Your task to perform on an android device: Open Wikipedia Image 0: 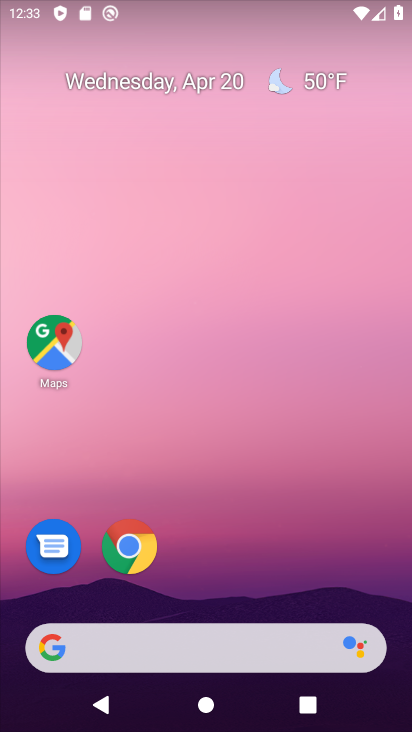
Step 0: drag from (246, 518) to (296, 46)
Your task to perform on an android device: Open Wikipedia Image 1: 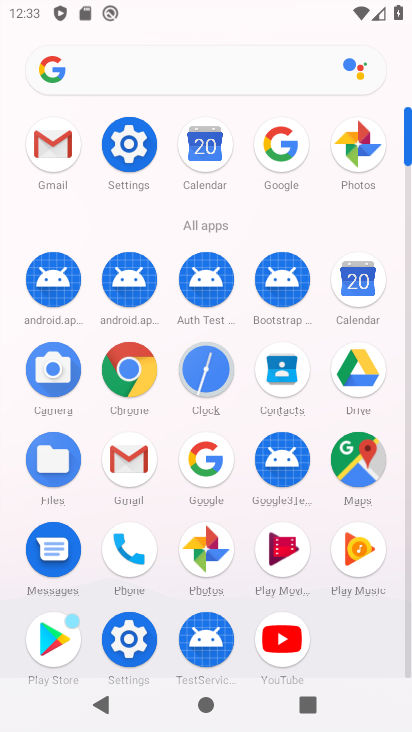
Step 1: click (130, 357)
Your task to perform on an android device: Open Wikipedia Image 2: 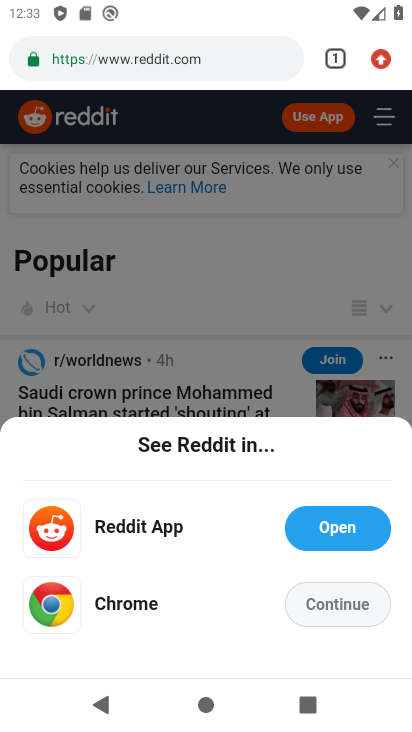
Step 2: click (337, 55)
Your task to perform on an android device: Open Wikipedia Image 3: 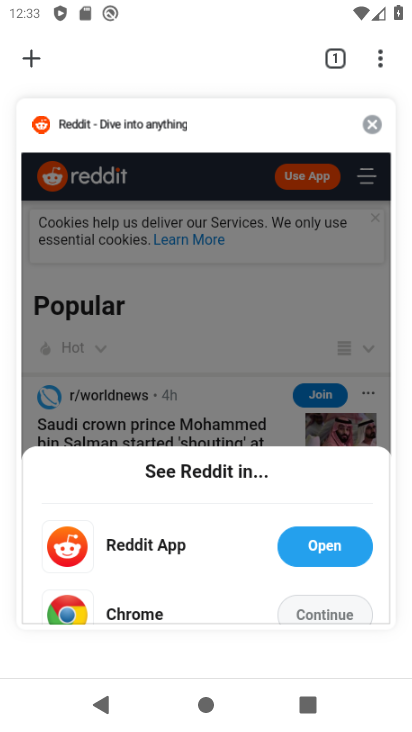
Step 3: click (25, 49)
Your task to perform on an android device: Open Wikipedia Image 4: 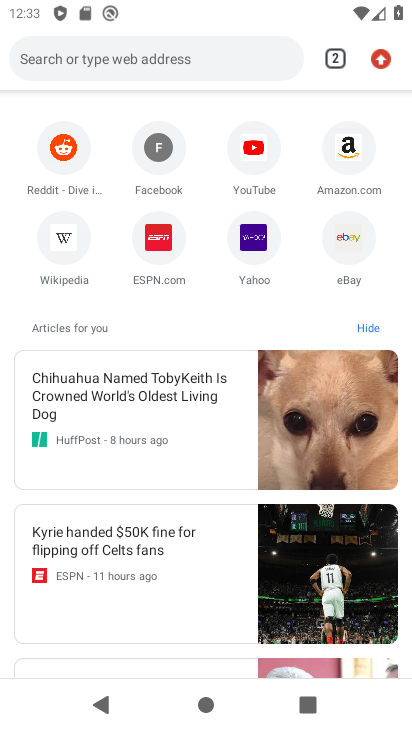
Step 4: click (61, 237)
Your task to perform on an android device: Open Wikipedia Image 5: 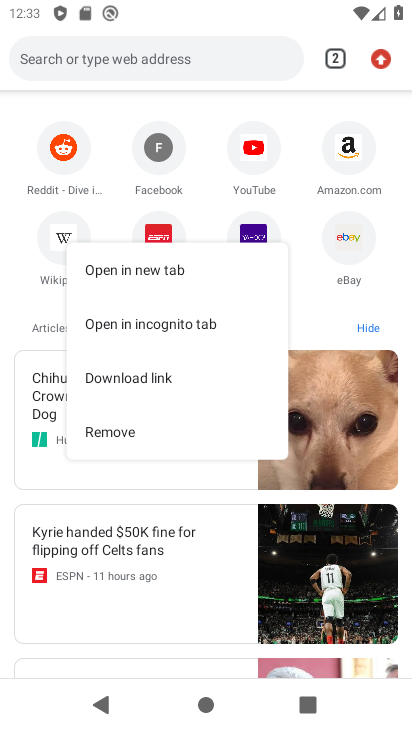
Step 5: click (58, 225)
Your task to perform on an android device: Open Wikipedia Image 6: 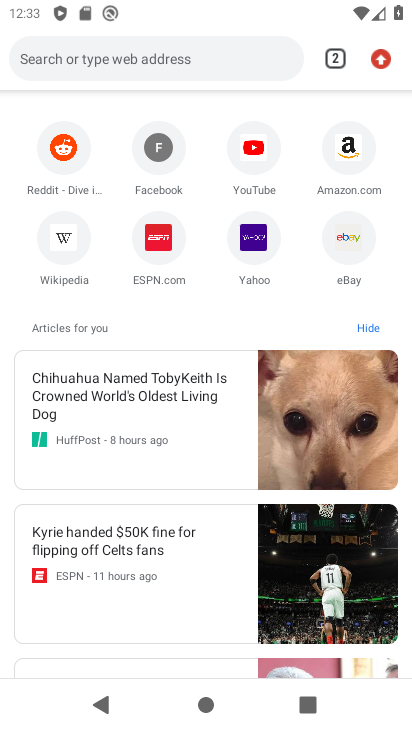
Step 6: click (72, 228)
Your task to perform on an android device: Open Wikipedia Image 7: 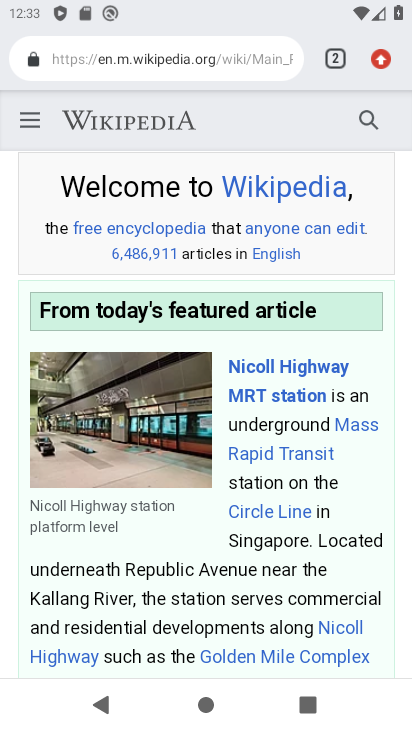
Step 7: task complete